Your task to perform on an android device: change timer sound Image 0: 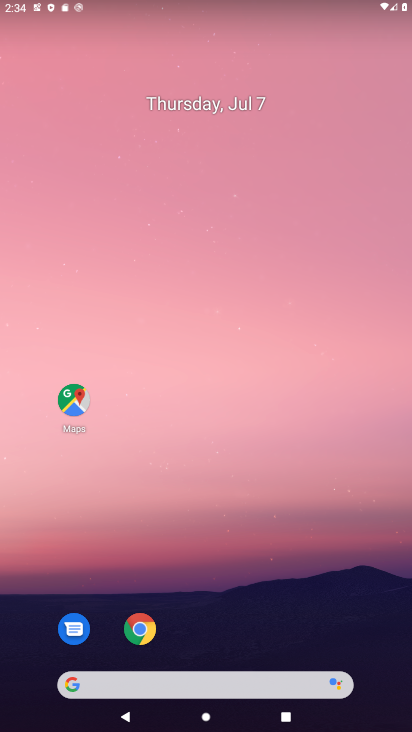
Step 0: drag from (237, 643) to (221, 201)
Your task to perform on an android device: change timer sound Image 1: 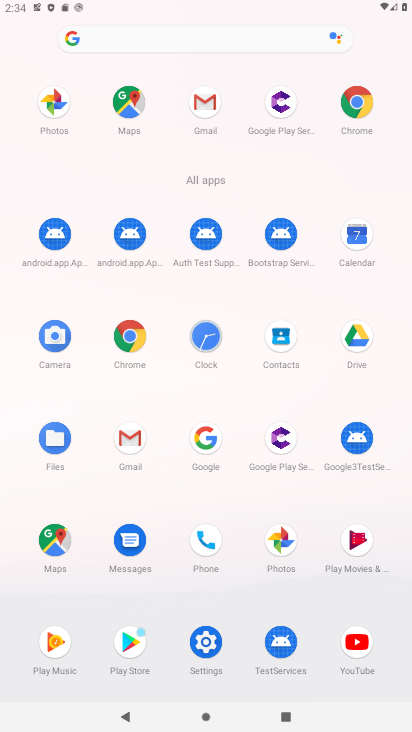
Step 1: click (200, 332)
Your task to perform on an android device: change timer sound Image 2: 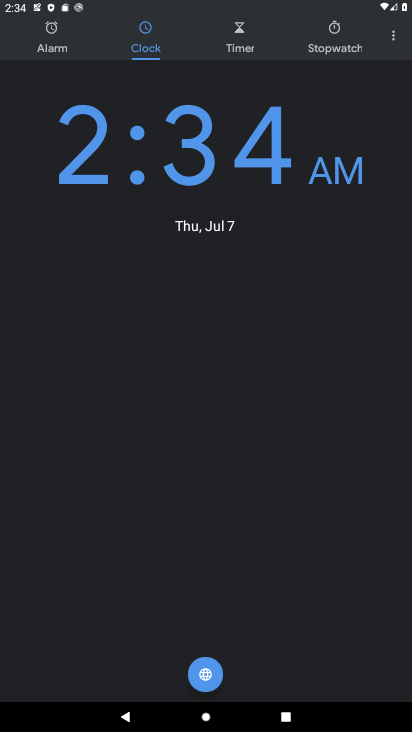
Step 2: click (396, 43)
Your task to perform on an android device: change timer sound Image 3: 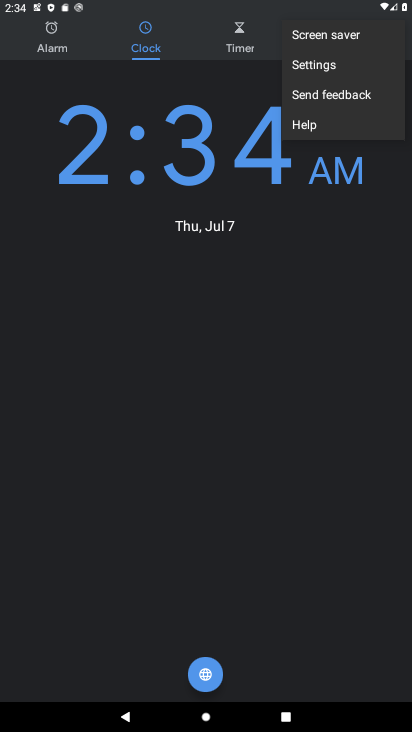
Step 3: click (327, 66)
Your task to perform on an android device: change timer sound Image 4: 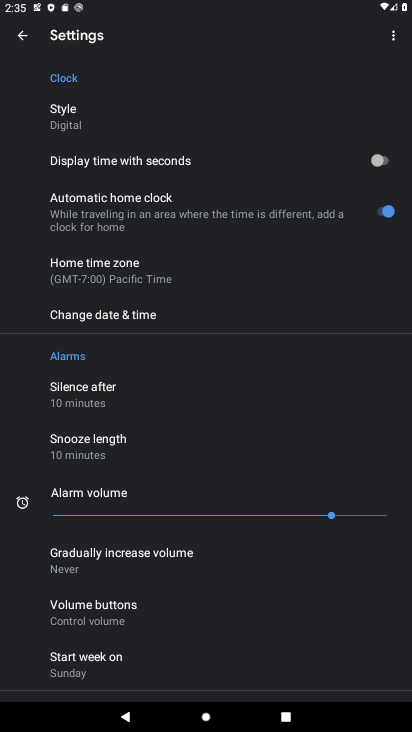
Step 4: drag from (161, 637) to (208, 144)
Your task to perform on an android device: change timer sound Image 5: 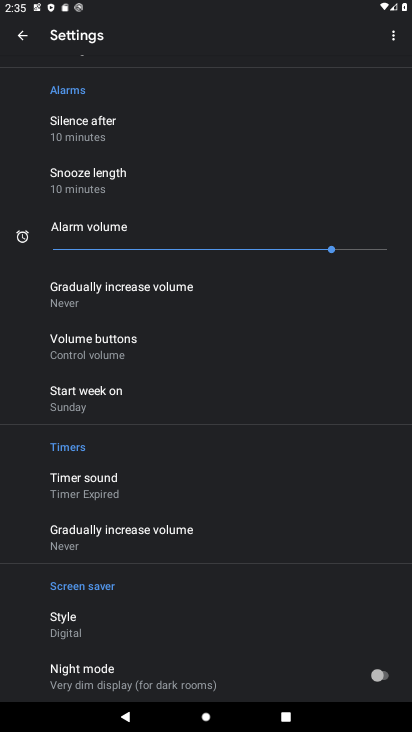
Step 5: click (114, 642)
Your task to perform on an android device: change timer sound Image 6: 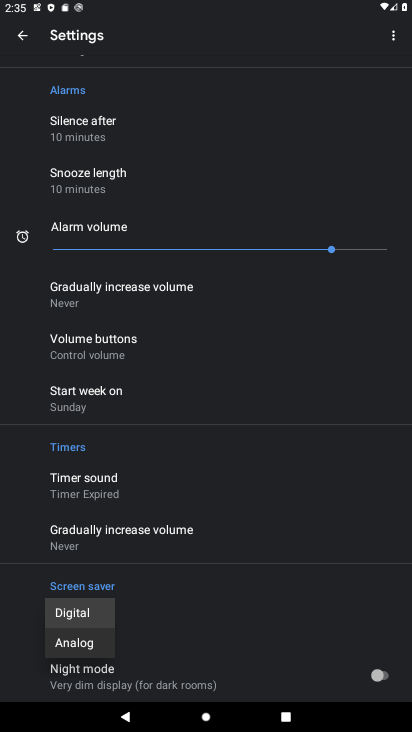
Step 6: drag from (312, 622) to (326, 250)
Your task to perform on an android device: change timer sound Image 7: 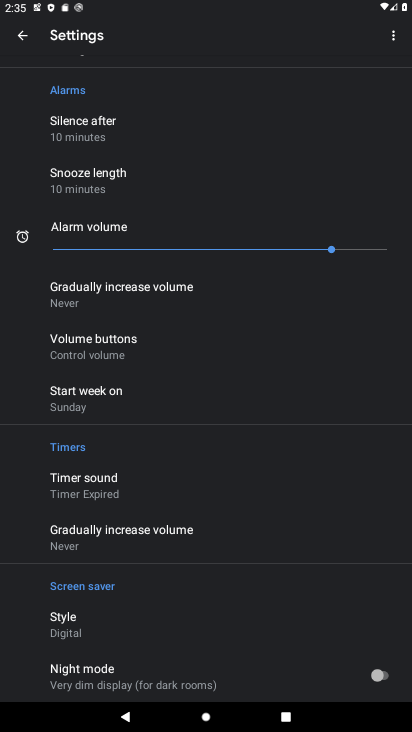
Step 7: click (97, 500)
Your task to perform on an android device: change timer sound Image 8: 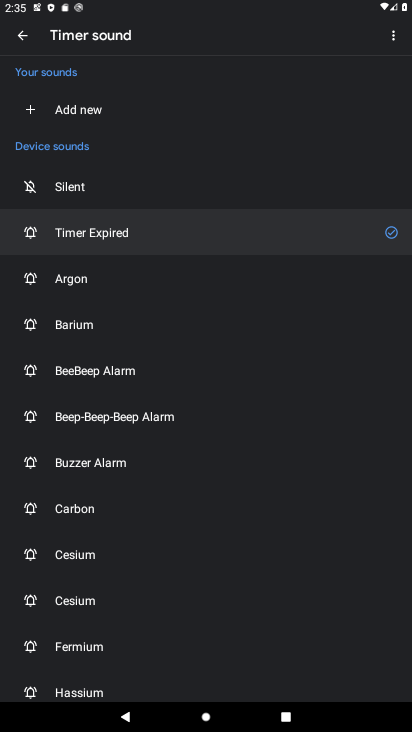
Step 8: click (81, 514)
Your task to perform on an android device: change timer sound Image 9: 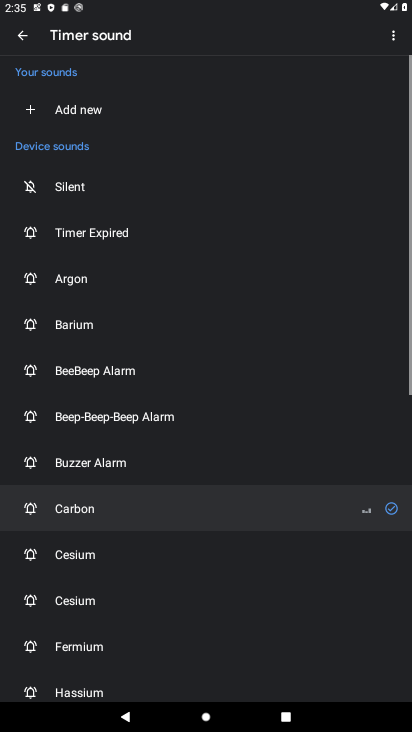
Step 9: task complete